Your task to perform on an android device: stop showing notifications on the lock screen Image 0: 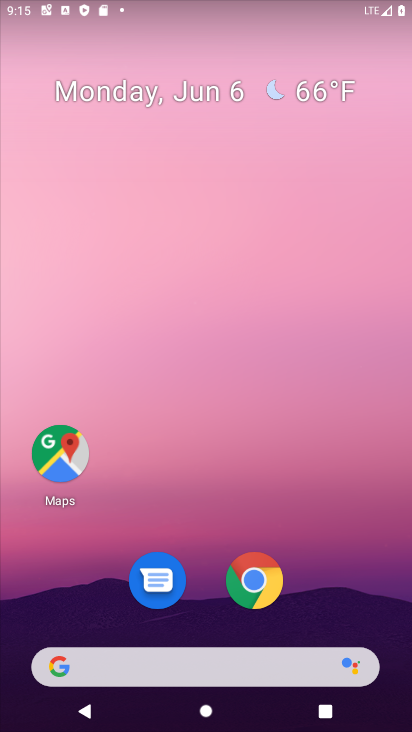
Step 0: drag from (342, 617) to (372, 175)
Your task to perform on an android device: stop showing notifications on the lock screen Image 1: 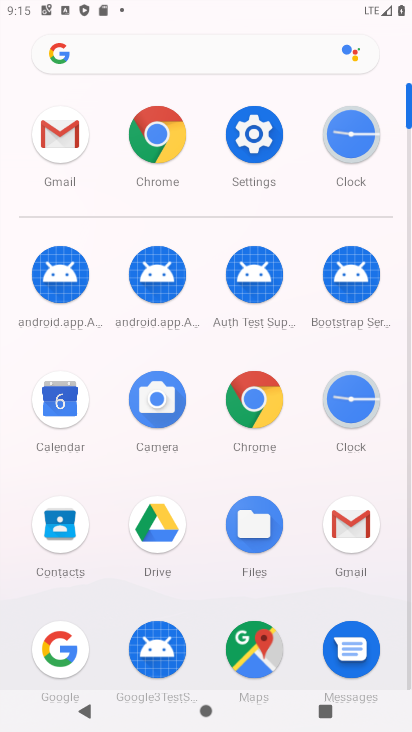
Step 1: click (262, 113)
Your task to perform on an android device: stop showing notifications on the lock screen Image 2: 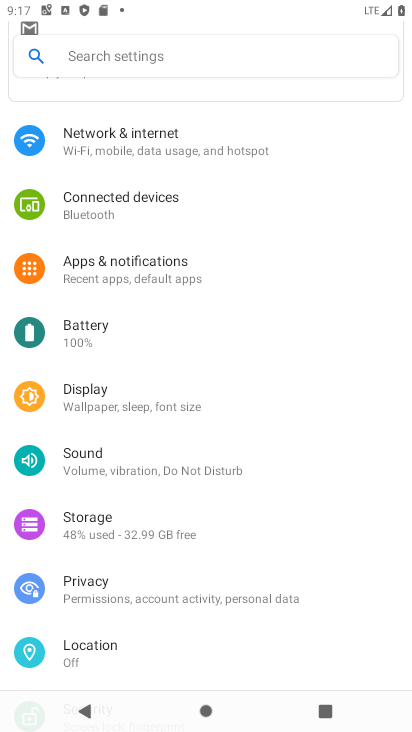
Step 2: click (174, 277)
Your task to perform on an android device: stop showing notifications on the lock screen Image 3: 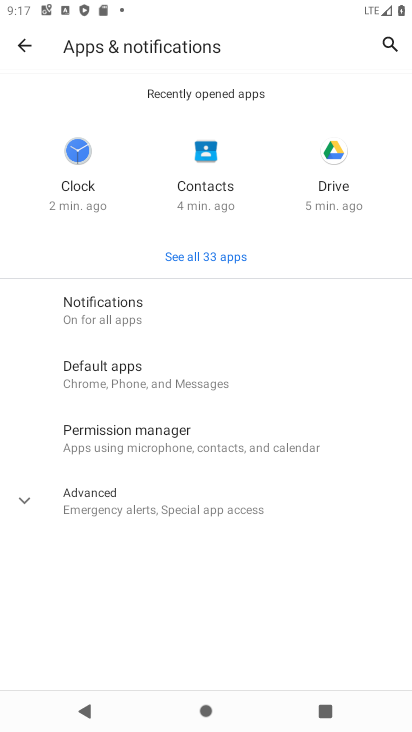
Step 3: click (107, 307)
Your task to perform on an android device: stop showing notifications on the lock screen Image 4: 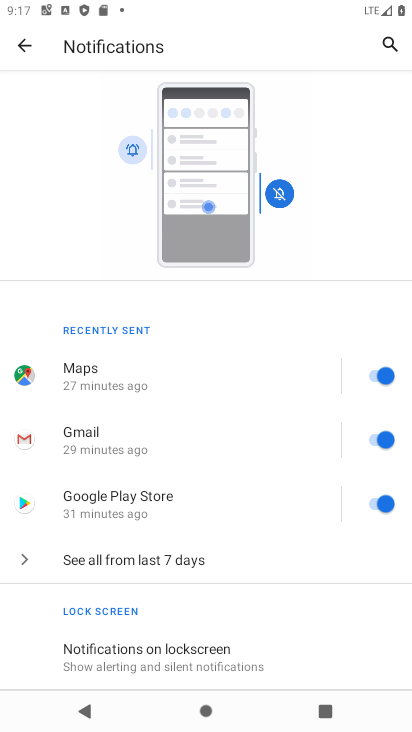
Step 4: drag from (199, 636) to (150, 128)
Your task to perform on an android device: stop showing notifications on the lock screen Image 5: 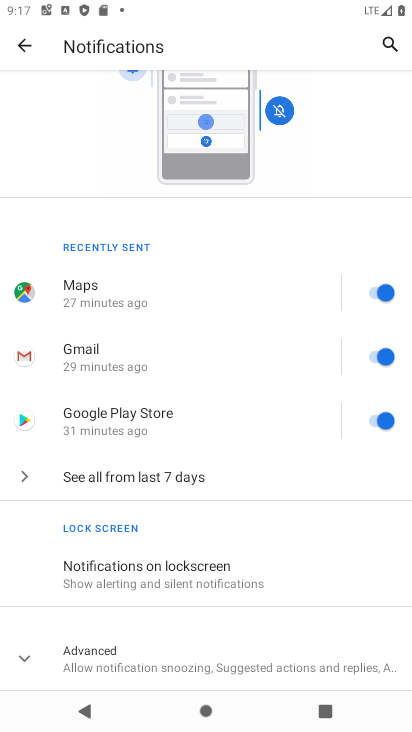
Step 5: click (223, 565)
Your task to perform on an android device: stop showing notifications on the lock screen Image 6: 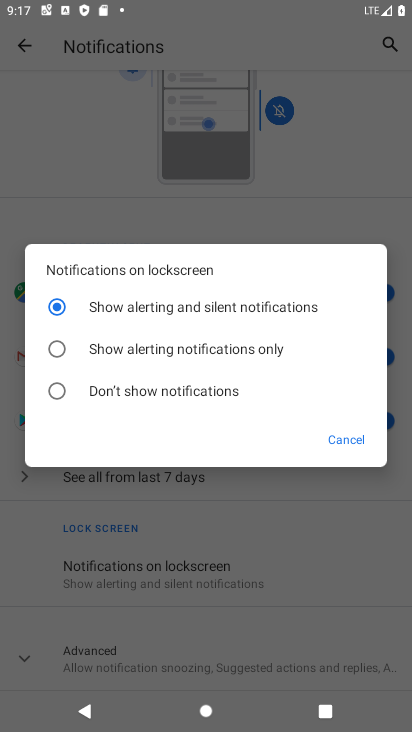
Step 6: click (56, 394)
Your task to perform on an android device: stop showing notifications on the lock screen Image 7: 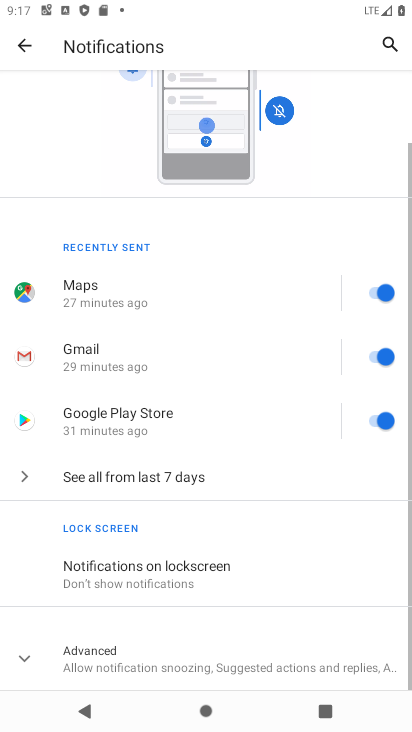
Step 7: task complete